Your task to perform on an android device: toggle translation in the chrome app Image 0: 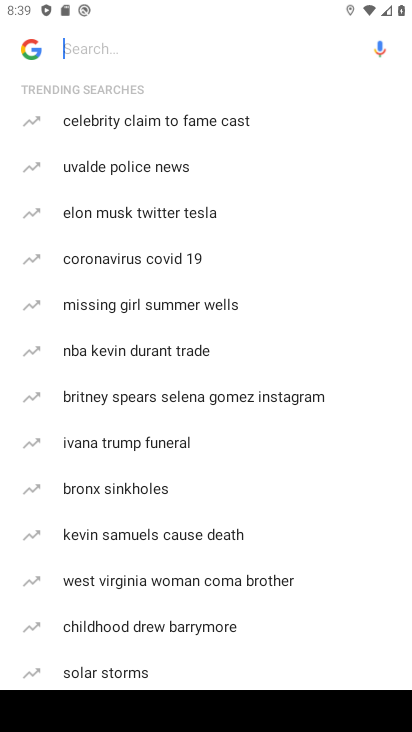
Step 0: press home button
Your task to perform on an android device: toggle translation in the chrome app Image 1: 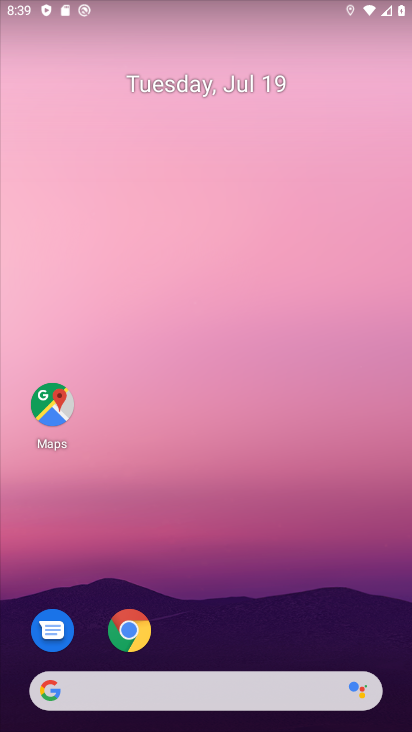
Step 1: click (134, 634)
Your task to perform on an android device: toggle translation in the chrome app Image 2: 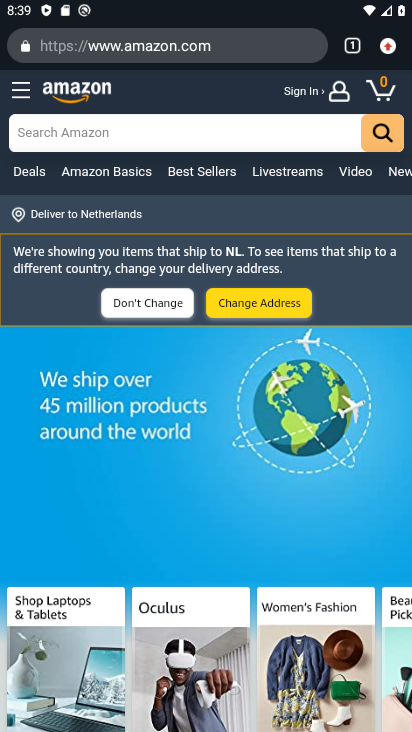
Step 2: click (390, 46)
Your task to perform on an android device: toggle translation in the chrome app Image 3: 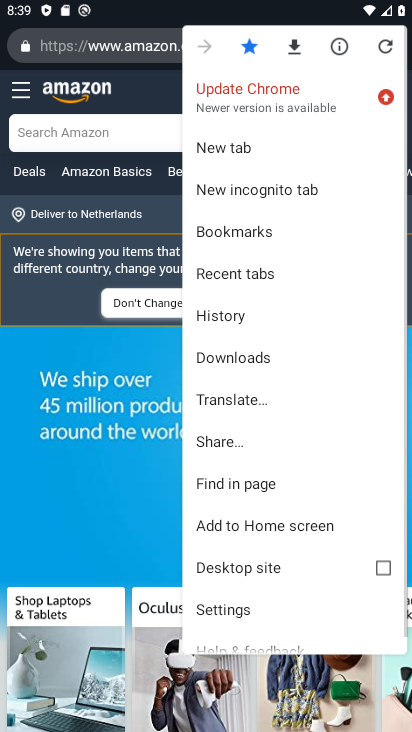
Step 3: click (220, 604)
Your task to perform on an android device: toggle translation in the chrome app Image 4: 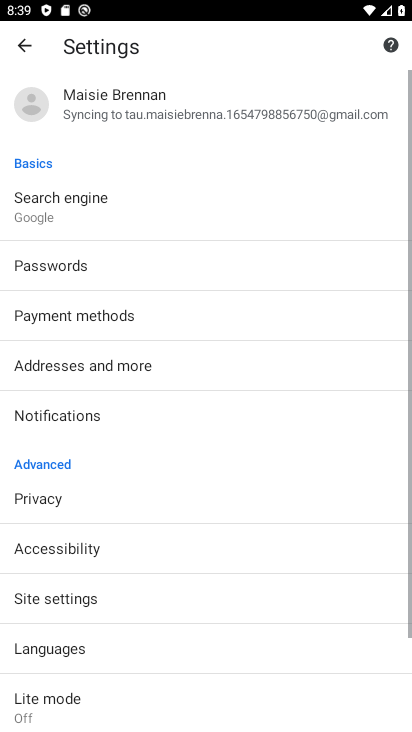
Step 4: click (72, 648)
Your task to perform on an android device: toggle translation in the chrome app Image 5: 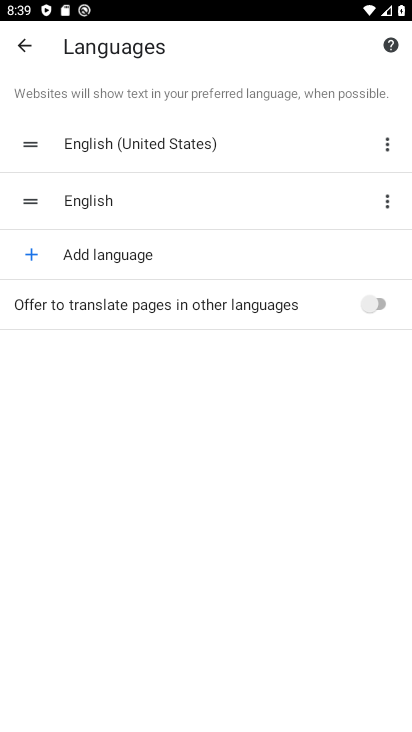
Step 5: click (377, 307)
Your task to perform on an android device: toggle translation in the chrome app Image 6: 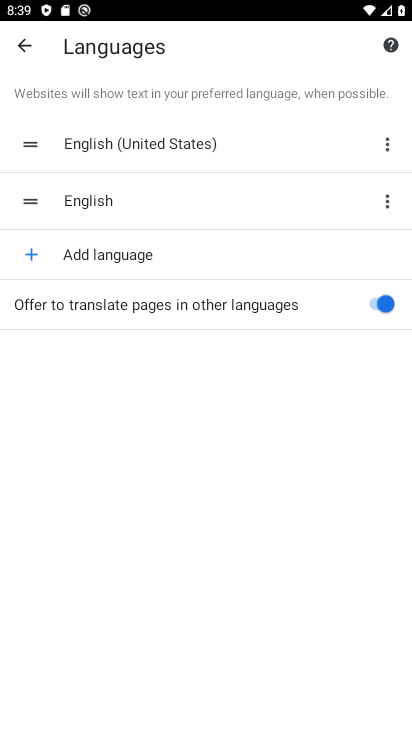
Step 6: task complete